Your task to perform on an android device: turn on javascript in the chrome app Image 0: 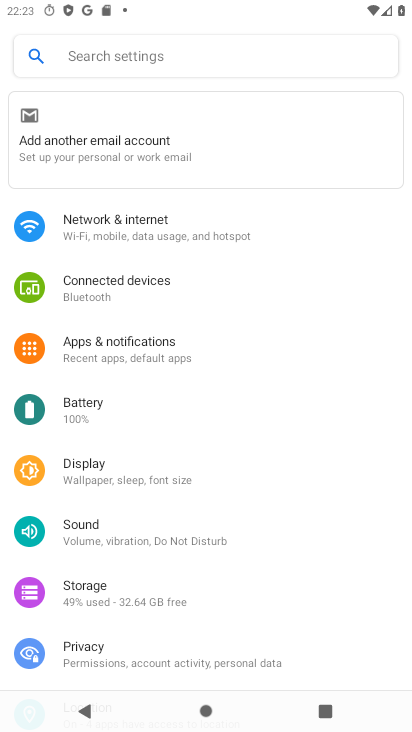
Step 0: press home button
Your task to perform on an android device: turn on javascript in the chrome app Image 1: 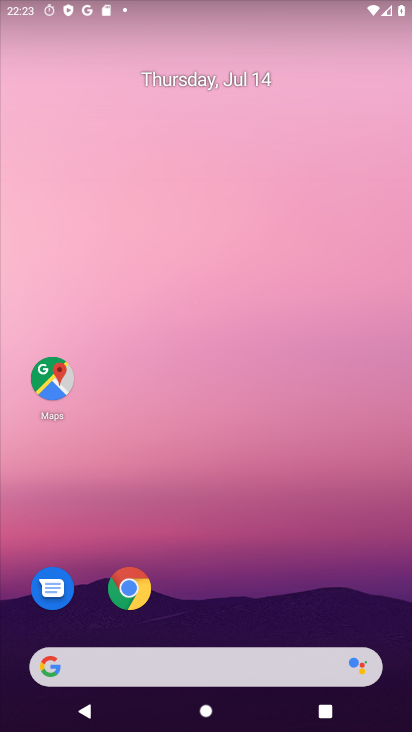
Step 1: click (131, 588)
Your task to perform on an android device: turn on javascript in the chrome app Image 2: 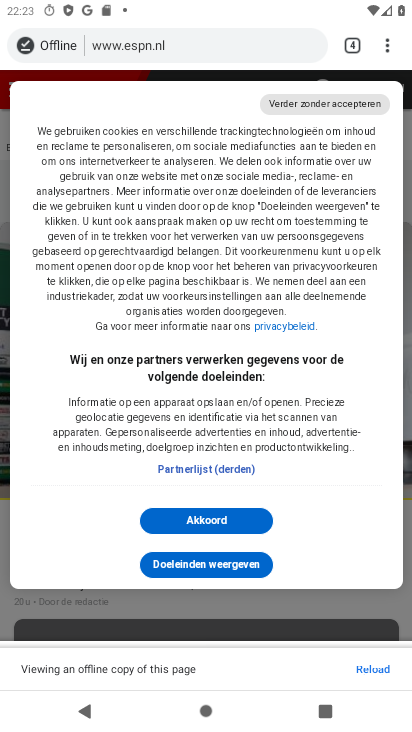
Step 2: click (386, 50)
Your task to perform on an android device: turn on javascript in the chrome app Image 3: 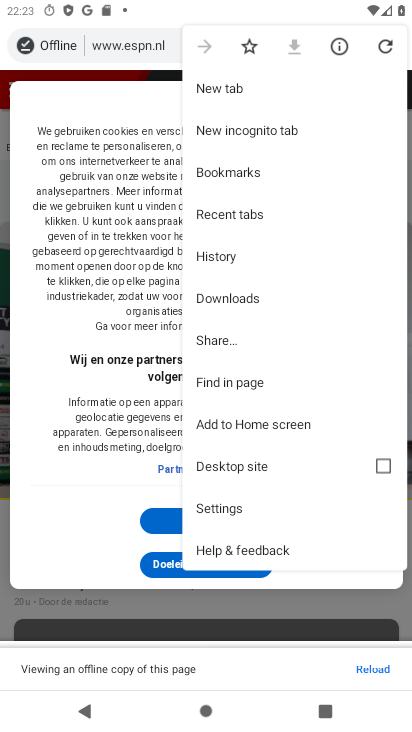
Step 3: click (252, 512)
Your task to perform on an android device: turn on javascript in the chrome app Image 4: 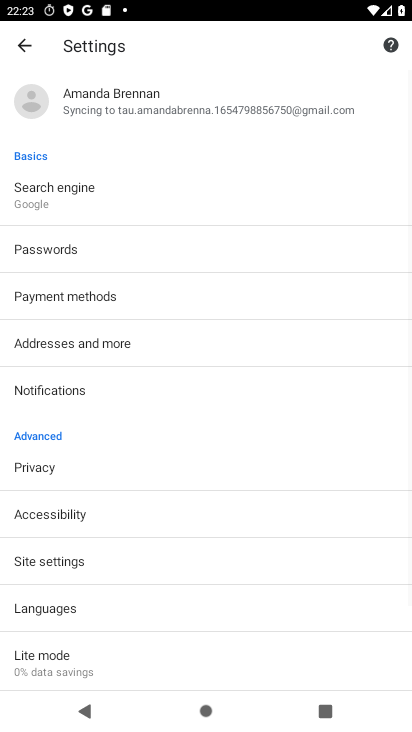
Step 4: click (71, 566)
Your task to perform on an android device: turn on javascript in the chrome app Image 5: 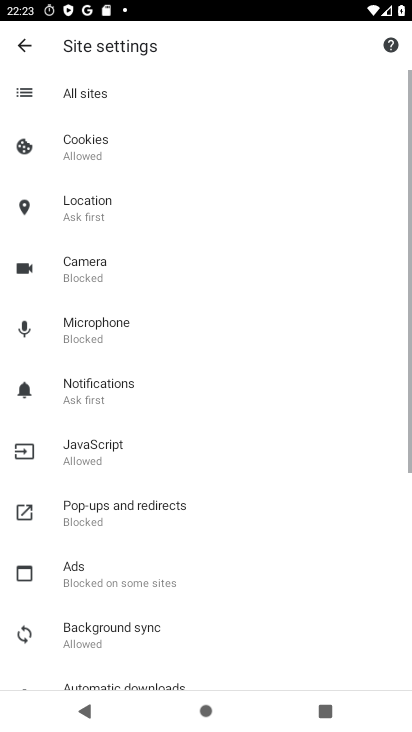
Step 5: click (101, 458)
Your task to perform on an android device: turn on javascript in the chrome app Image 6: 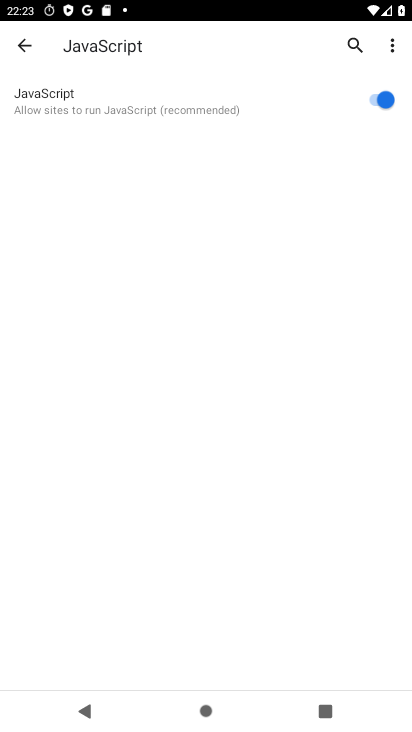
Step 6: task complete